Your task to perform on an android device: Go to settings Image 0: 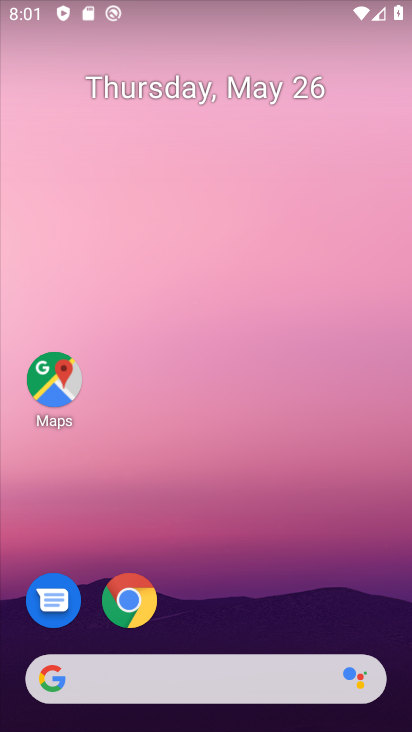
Step 0: drag from (274, 644) to (285, 188)
Your task to perform on an android device: Go to settings Image 1: 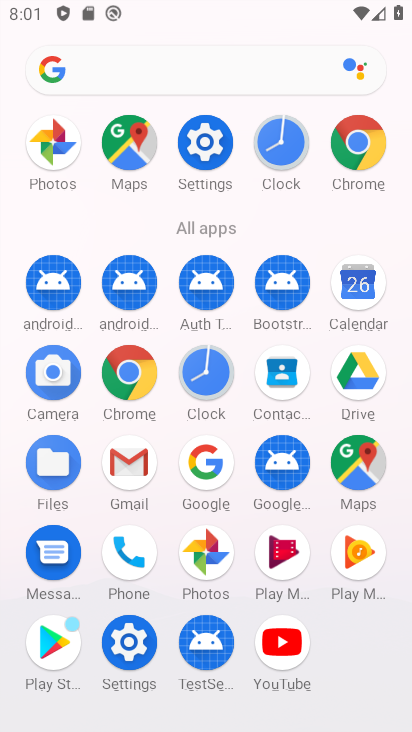
Step 1: click (220, 141)
Your task to perform on an android device: Go to settings Image 2: 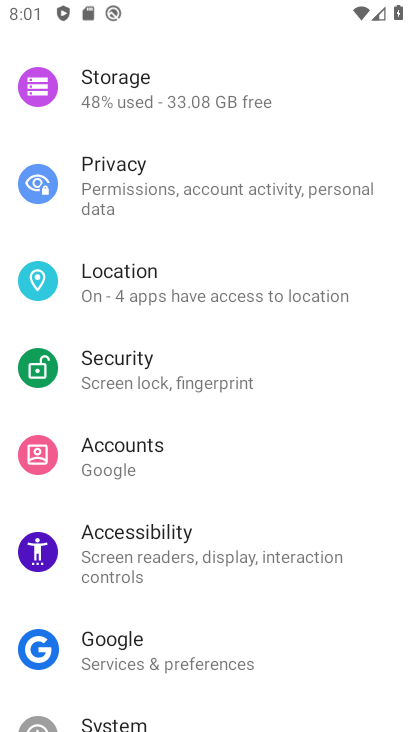
Step 2: task complete